Your task to perform on an android device: Go to sound settings Image 0: 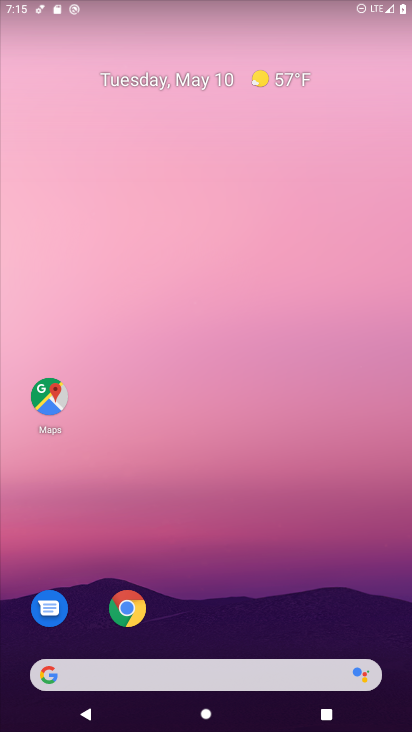
Step 0: drag from (320, 617) to (223, 30)
Your task to perform on an android device: Go to sound settings Image 1: 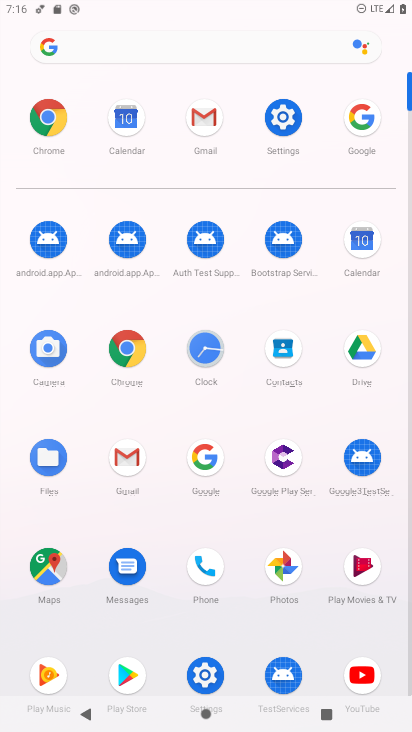
Step 1: click (286, 118)
Your task to perform on an android device: Go to sound settings Image 2: 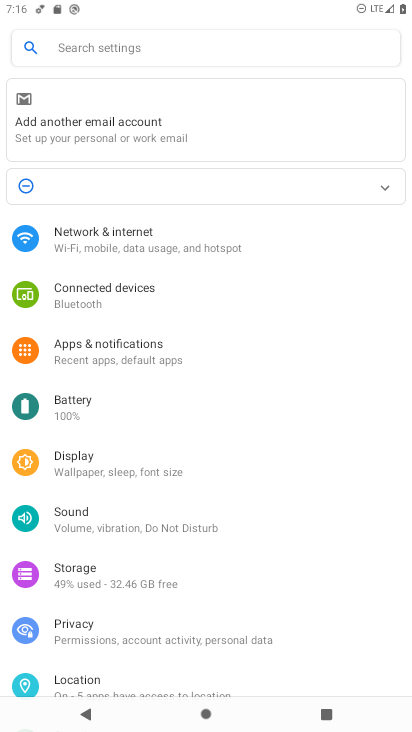
Step 2: click (65, 517)
Your task to perform on an android device: Go to sound settings Image 3: 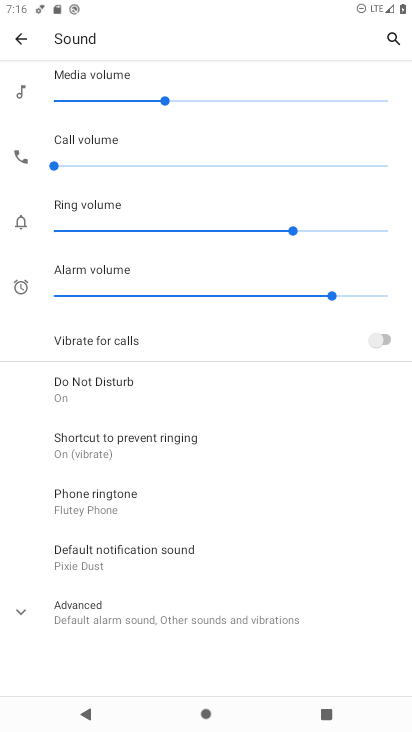
Step 3: task complete